Your task to perform on an android device: Open the Play Movies app and select the watchlist tab. Image 0: 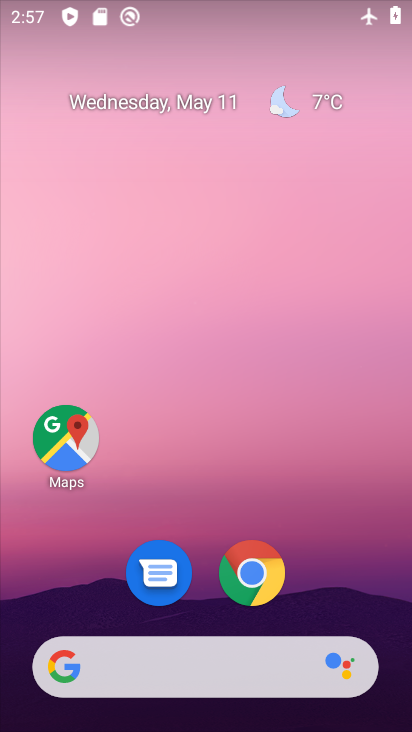
Step 0: drag from (280, 631) to (261, 174)
Your task to perform on an android device: Open the Play Movies app and select the watchlist tab. Image 1: 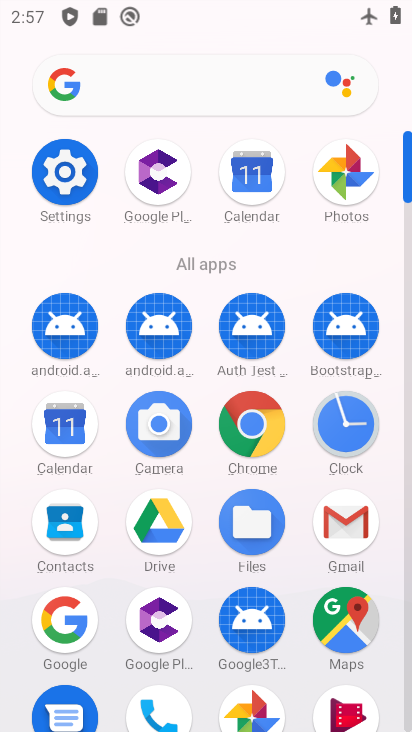
Step 1: click (340, 698)
Your task to perform on an android device: Open the Play Movies app and select the watchlist tab. Image 2: 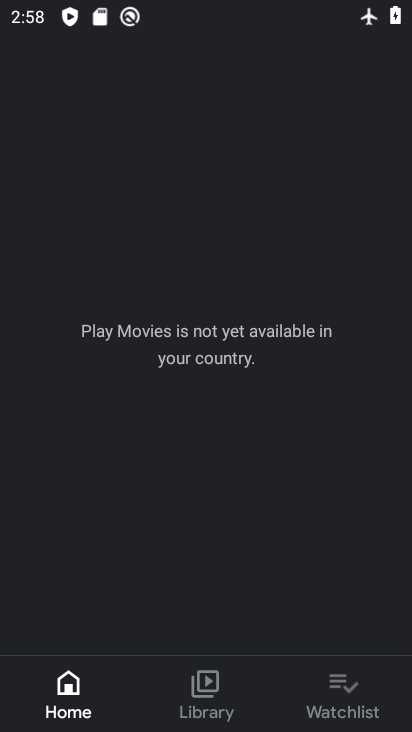
Step 2: click (358, 699)
Your task to perform on an android device: Open the Play Movies app and select the watchlist tab. Image 3: 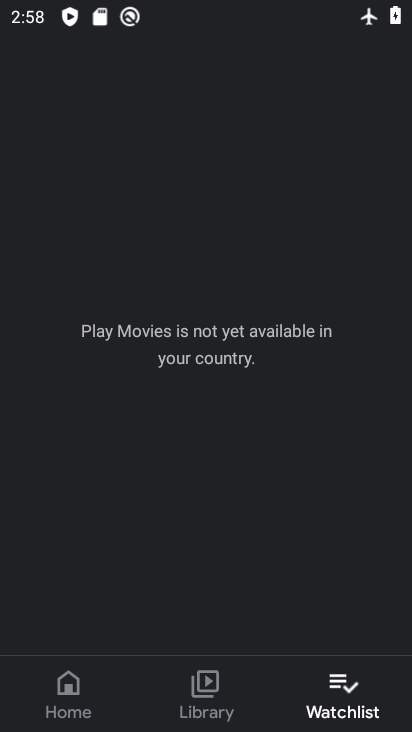
Step 3: task complete